Your task to perform on an android device: Open Youtube and go to "Your channel" Image 0: 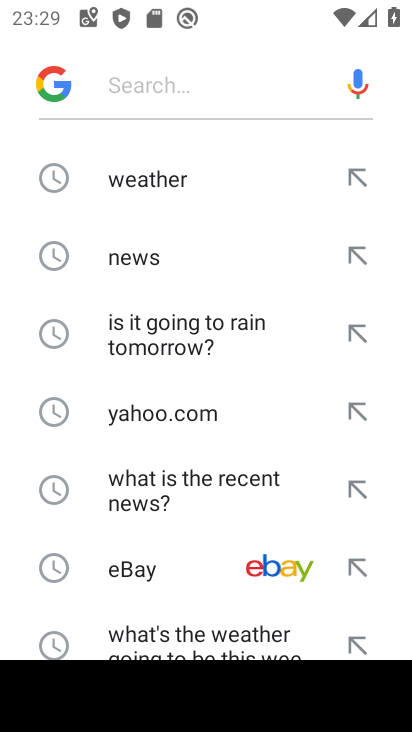
Step 0: press home button
Your task to perform on an android device: Open Youtube and go to "Your channel" Image 1: 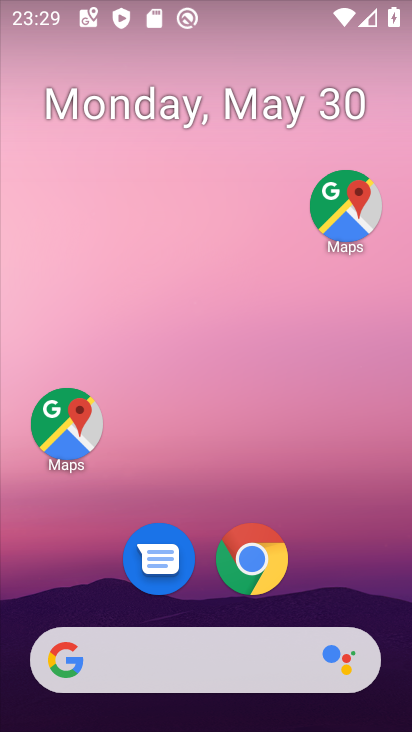
Step 1: drag from (331, 558) to (259, 145)
Your task to perform on an android device: Open Youtube and go to "Your channel" Image 2: 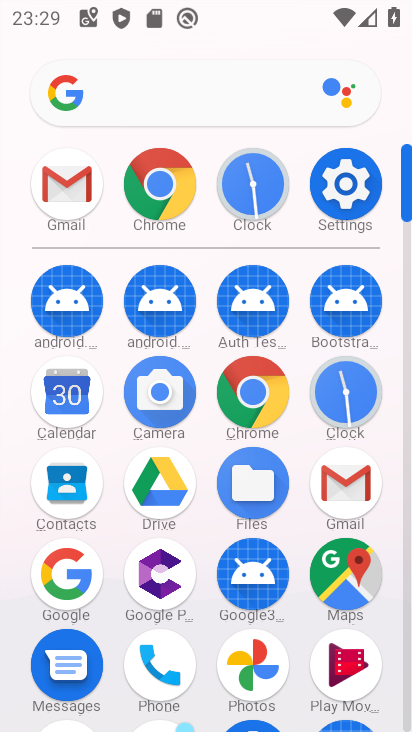
Step 2: drag from (304, 611) to (308, 175)
Your task to perform on an android device: Open Youtube and go to "Your channel" Image 3: 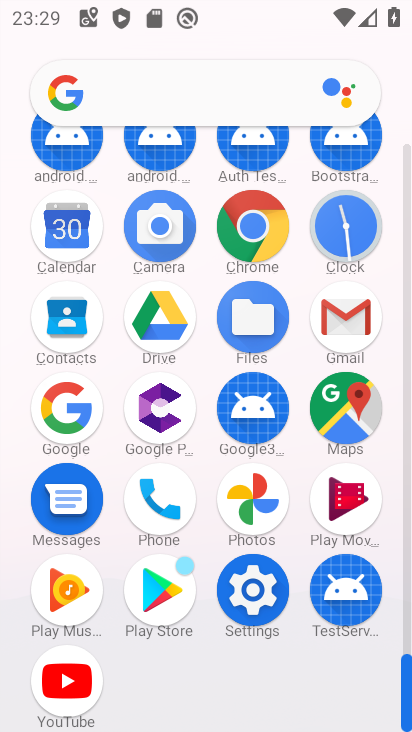
Step 3: click (70, 670)
Your task to perform on an android device: Open Youtube and go to "Your channel" Image 4: 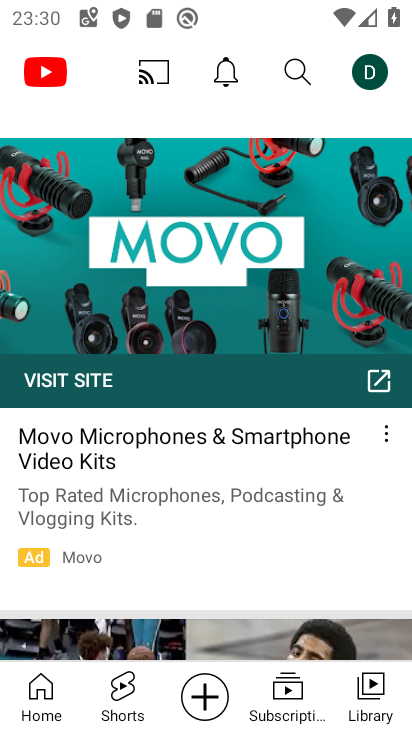
Step 4: click (370, 78)
Your task to perform on an android device: Open Youtube and go to "Your channel" Image 5: 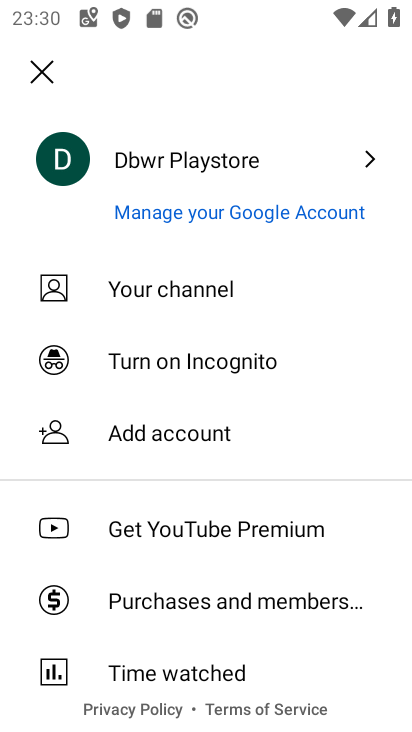
Step 5: click (157, 289)
Your task to perform on an android device: Open Youtube and go to "Your channel" Image 6: 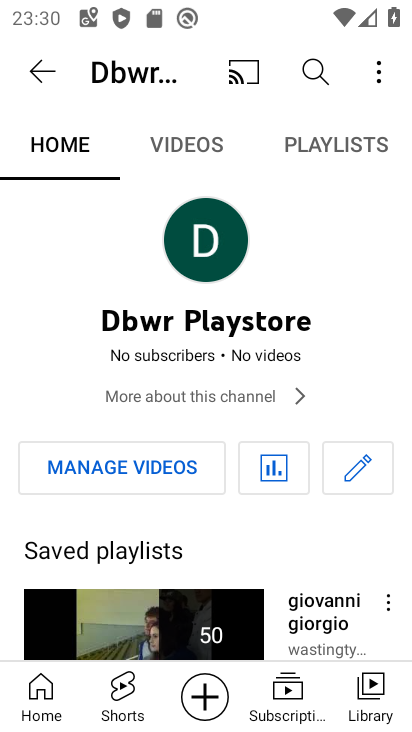
Step 6: task complete